Your task to perform on an android device: Search for Mexican restaurants on Maps Image 0: 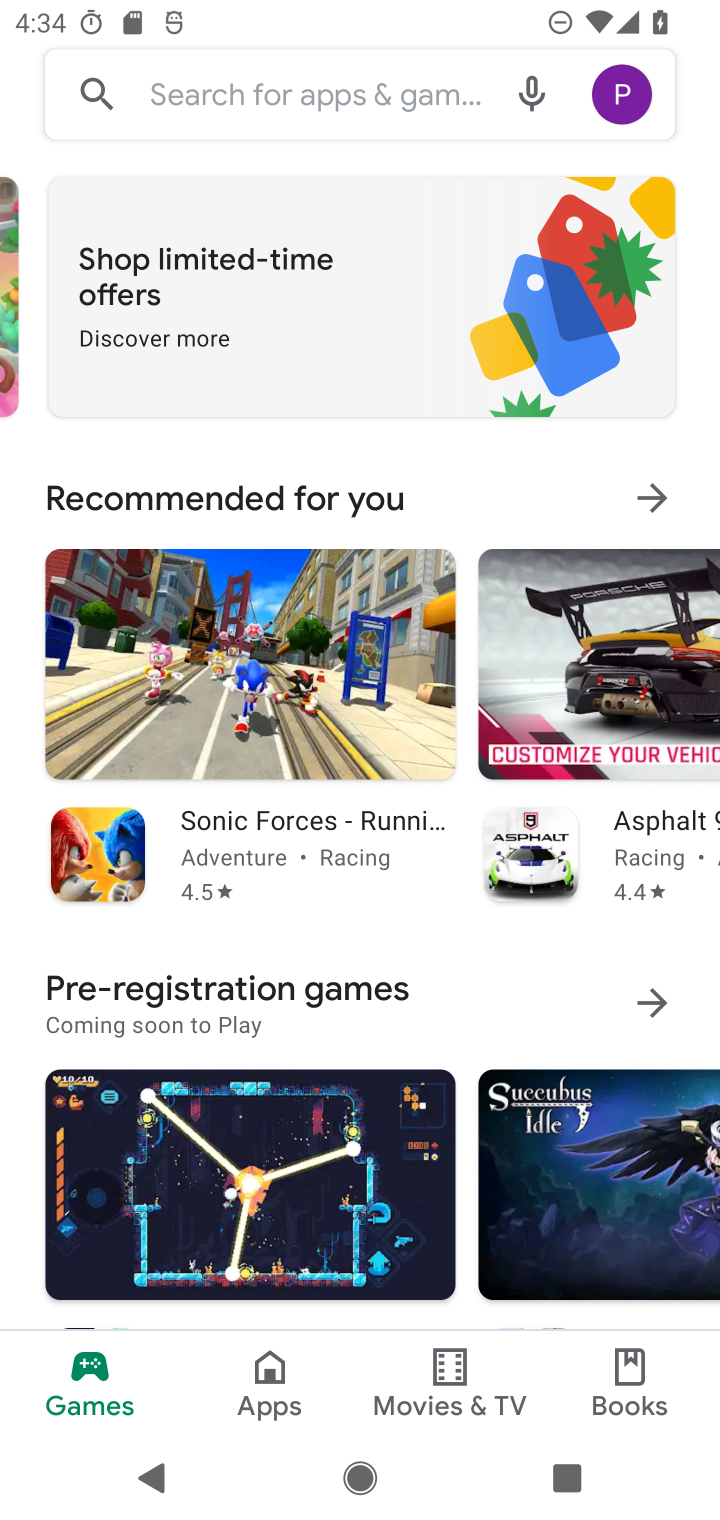
Step 0: press home button
Your task to perform on an android device: Search for Mexican restaurants on Maps Image 1: 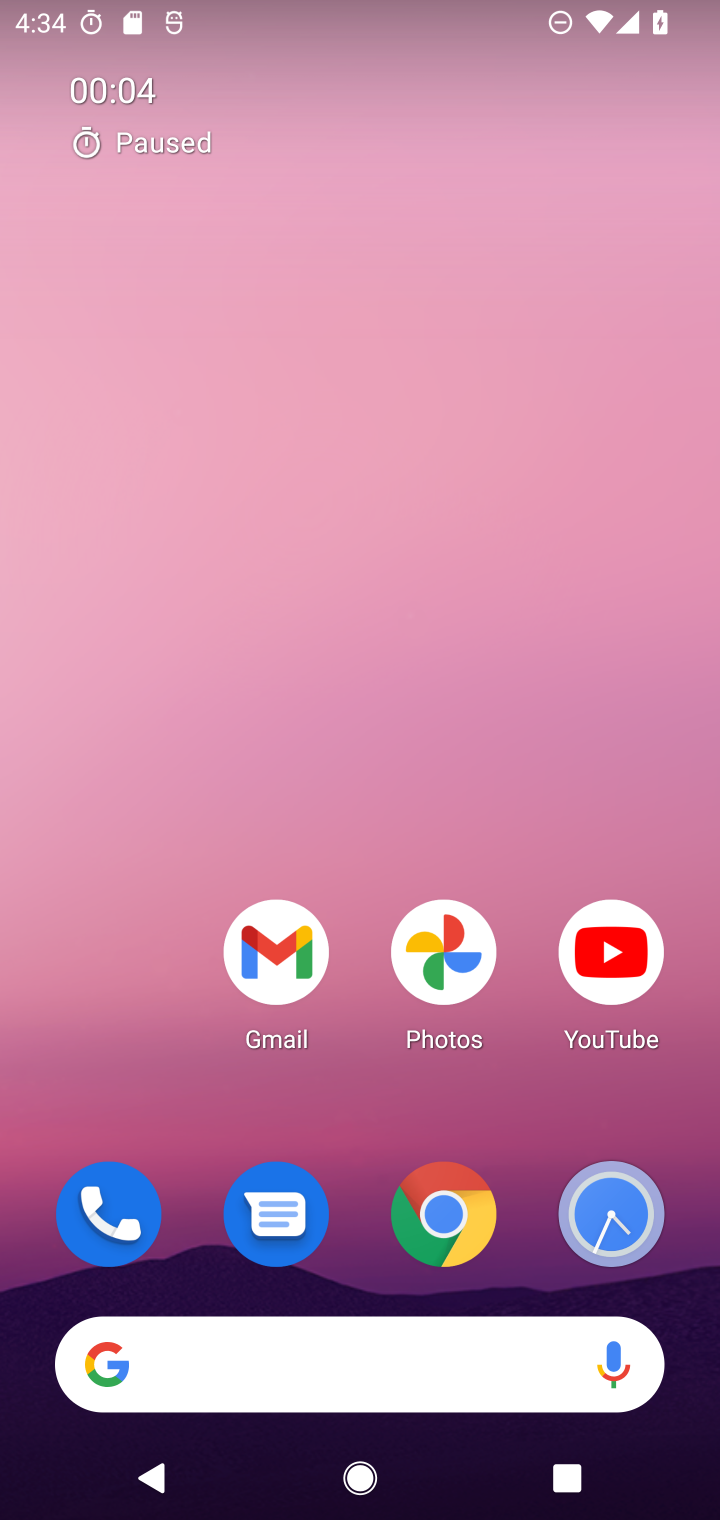
Step 1: drag from (341, 1153) to (341, 160)
Your task to perform on an android device: Search for Mexican restaurants on Maps Image 2: 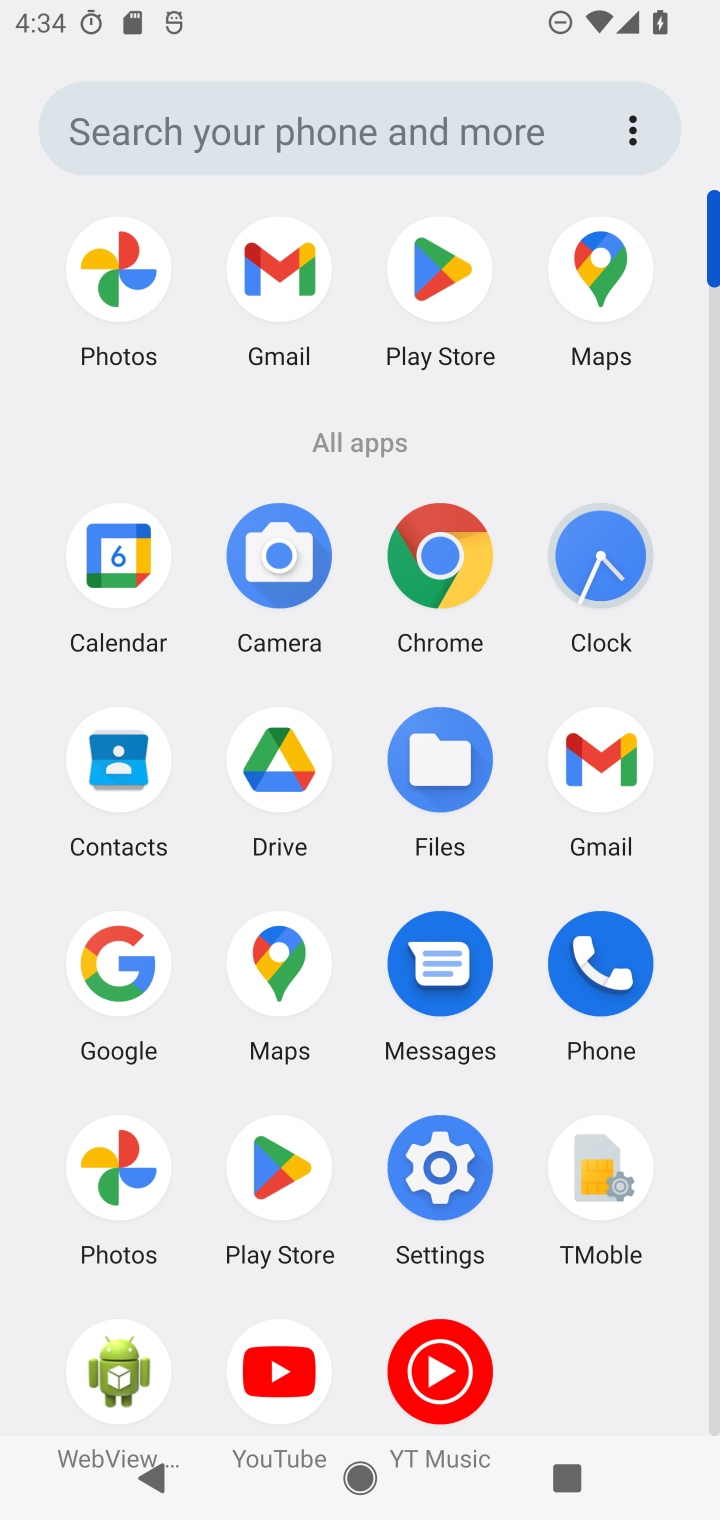
Step 2: click (284, 1003)
Your task to perform on an android device: Search for Mexican restaurants on Maps Image 3: 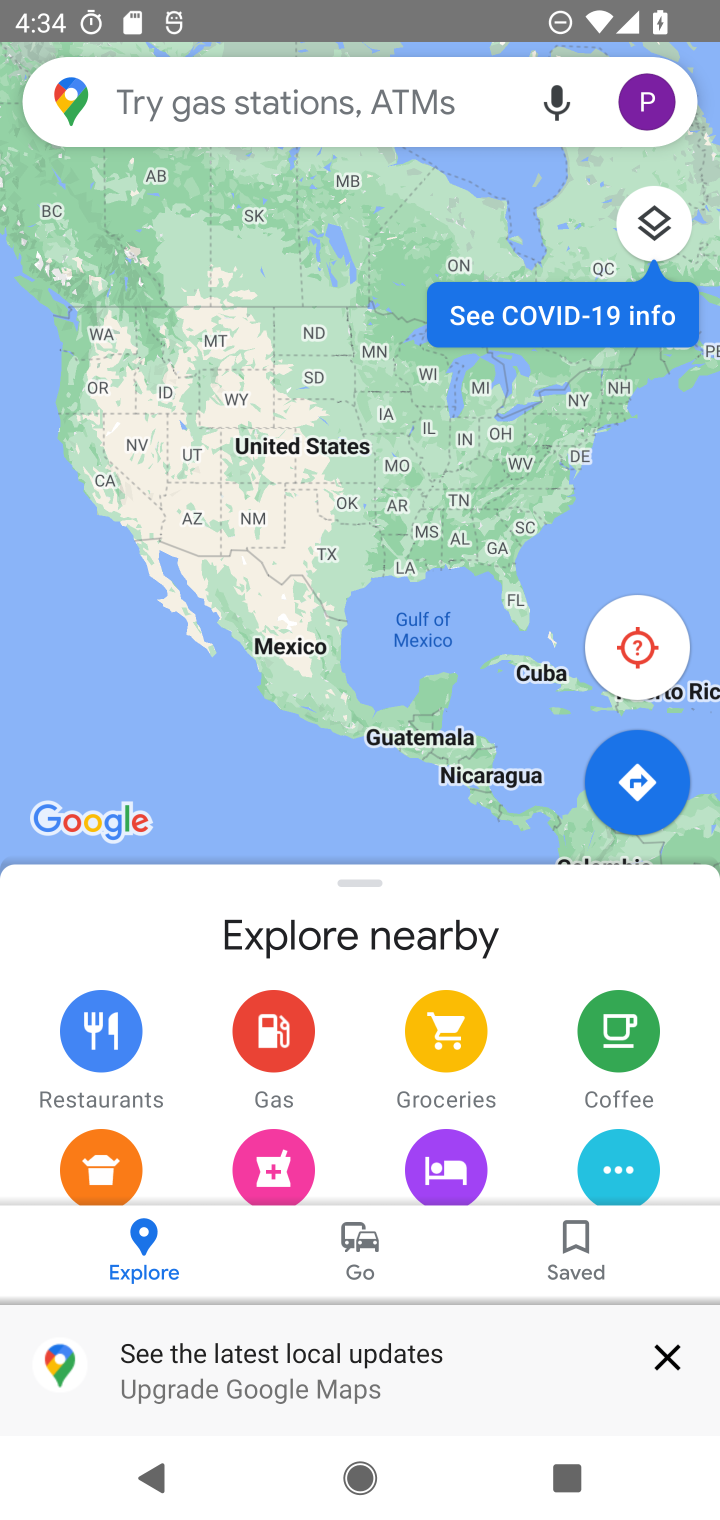
Step 3: click (228, 115)
Your task to perform on an android device: Search for Mexican restaurants on Maps Image 4: 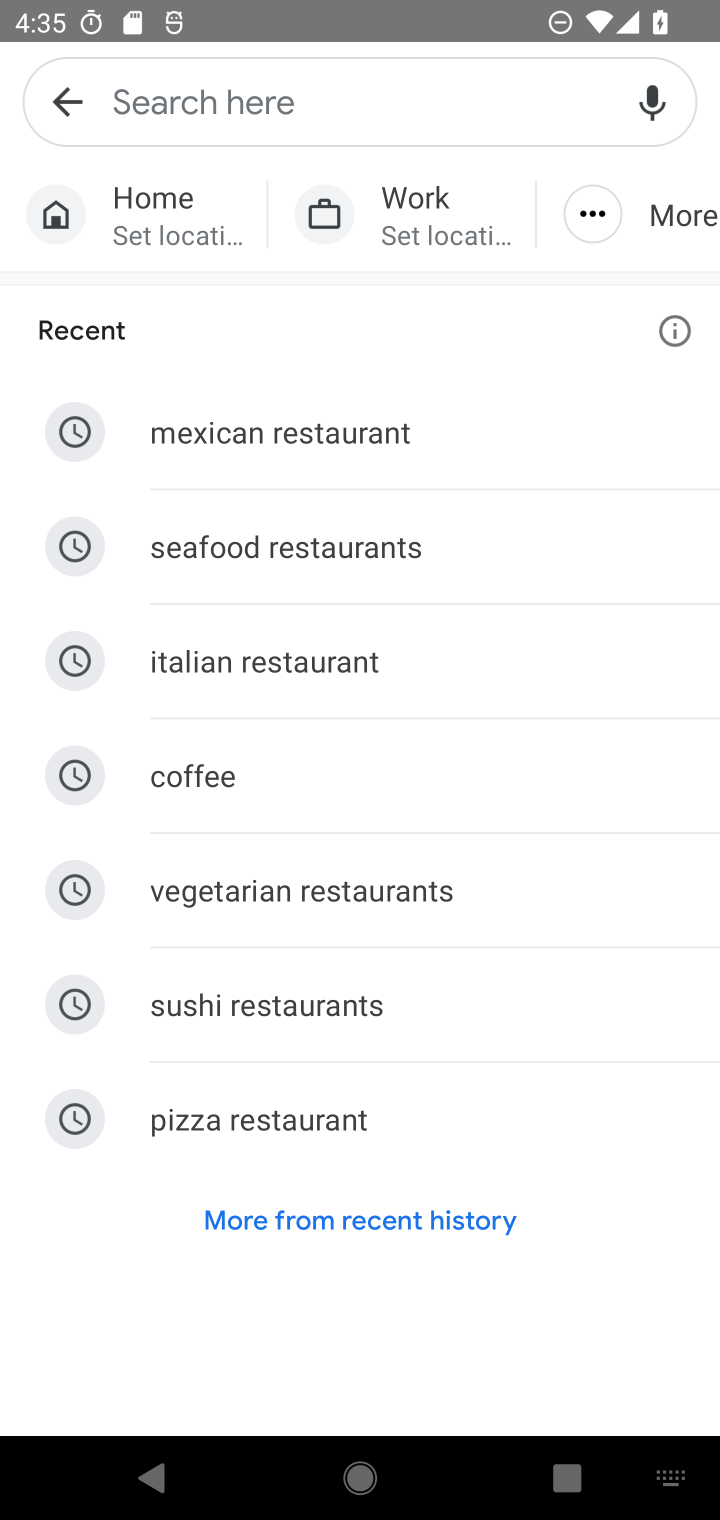
Step 4: click (241, 434)
Your task to perform on an android device: Search for Mexican restaurants on Maps Image 5: 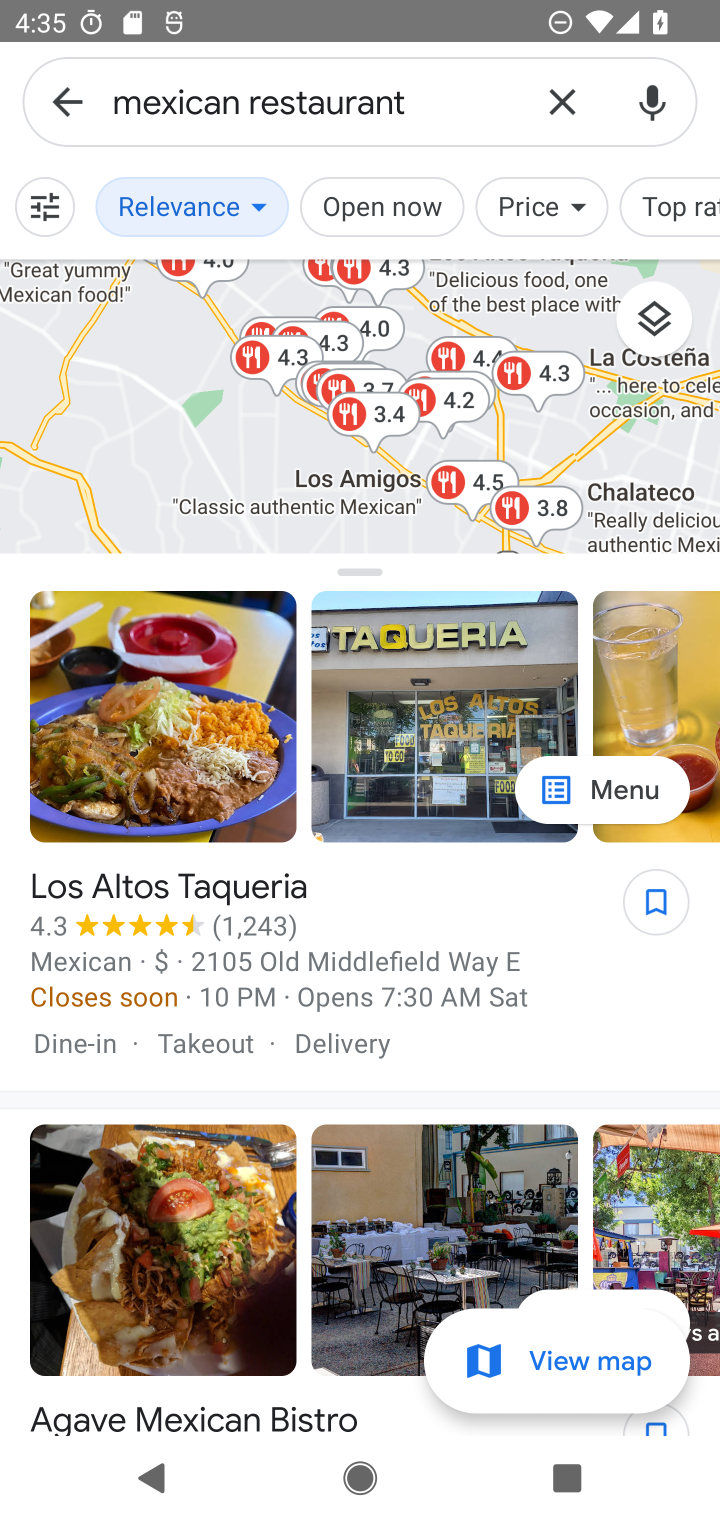
Step 5: task complete